Your task to perform on an android device: search for starred emails in the gmail app Image 0: 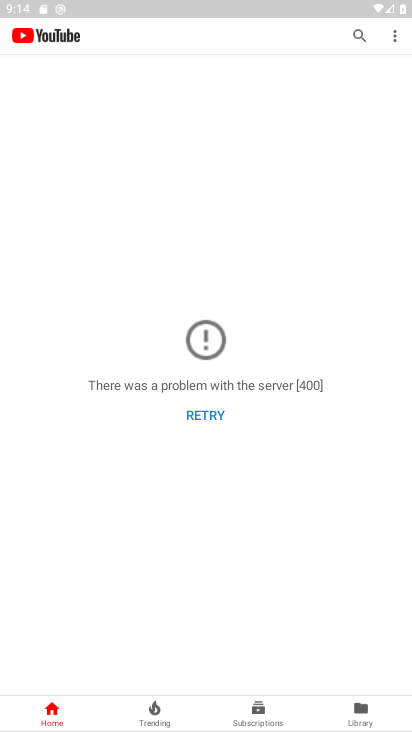
Step 0: press home button
Your task to perform on an android device: search for starred emails in the gmail app Image 1: 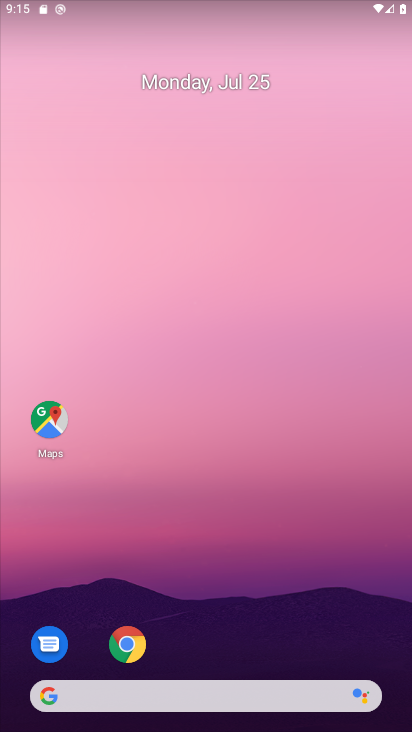
Step 1: drag from (395, 573) to (383, 78)
Your task to perform on an android device: search for starred emails in the gmail app Image 2: 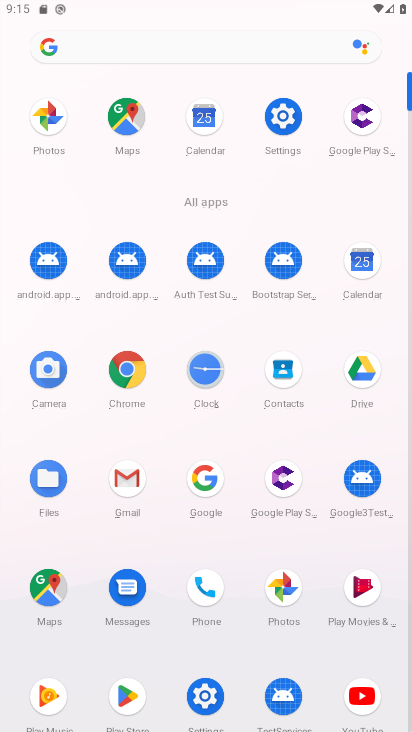
Step 2: click (118, 469)
Your task to perform on an android device: search for starred emails in the gmail app Image 3: 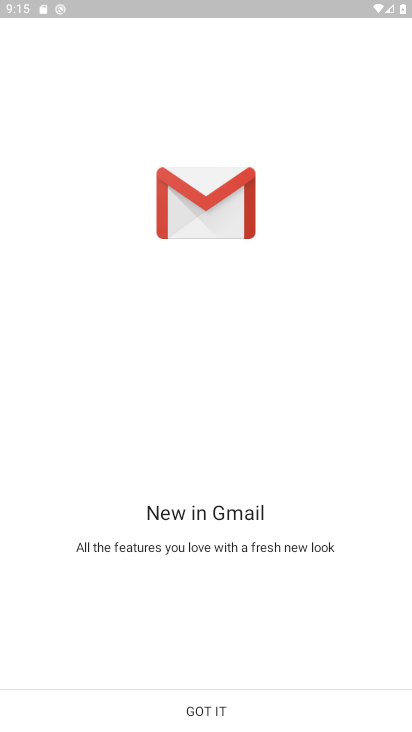
Step 3: click (212, 704)
Your task to perform on an android device: search for starred emails in the gmail app Image 4: 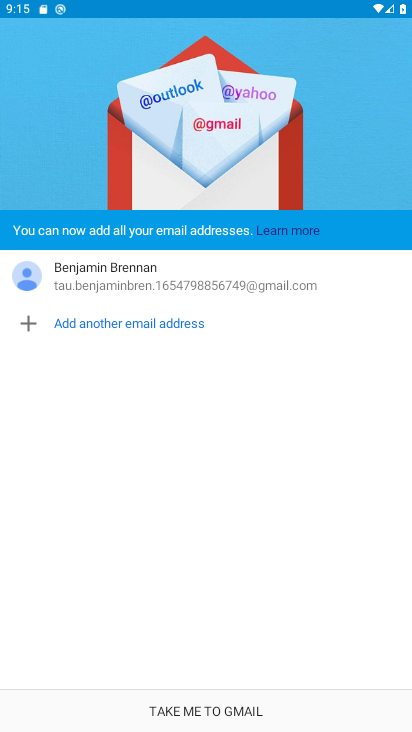
Step 4: click (212, 704)
Your task to perform on an android device: search for starred emails in the gmail app Image 5: 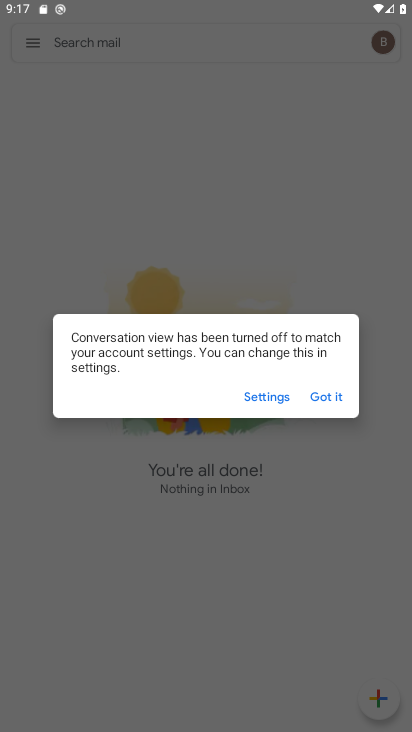
Step 5: task complete